Your task to perform on an android device: open chrome privacy settings Image 0: 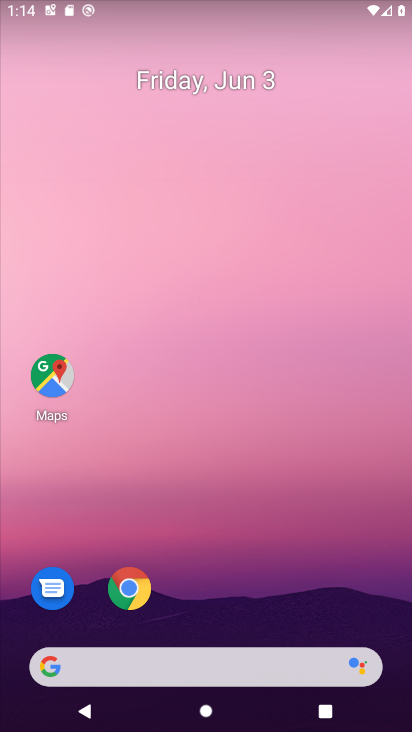
Step 0: drag from (294, 571) to (323, 41)
Your task to perform on an android device: open chrome privacy settings Image 1: 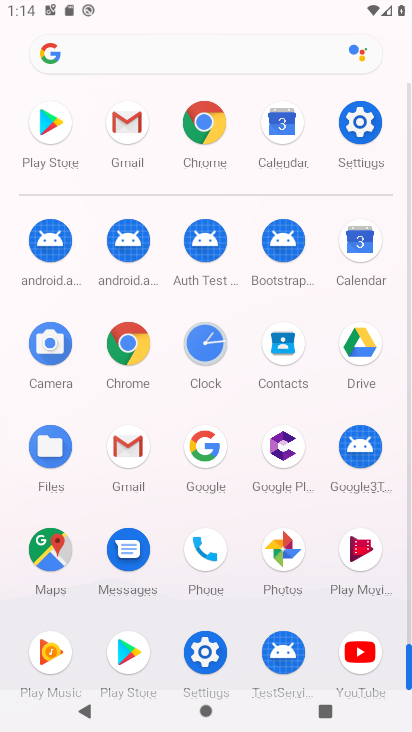
Step 1: click (367, 123)
Your task to perform on an android device: open chrome privacy settings Image 2: 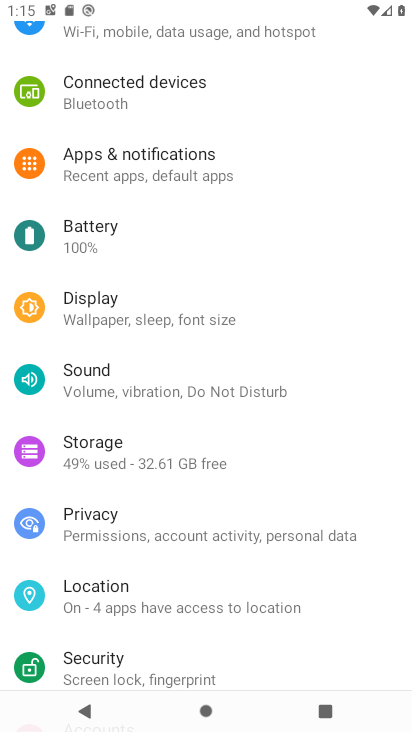
Step 2: drag from (199, 596) to (203, 355)
Your task to perform on an android device: open chrome privacy settings Image 3: 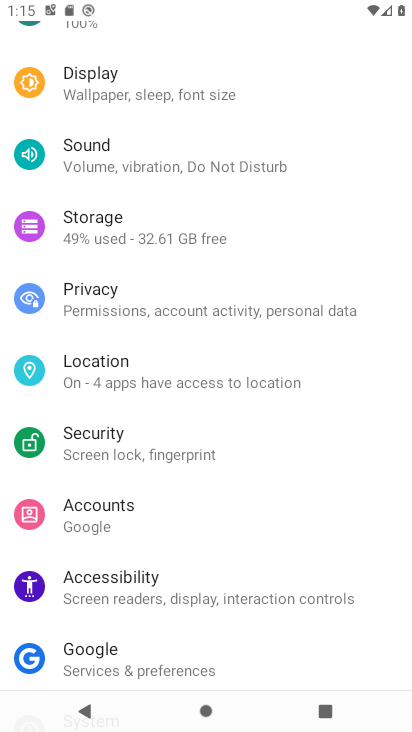
Step 3: click (292, 293)
Your task to perform on an android device: open chrome privacy settings Image 4: 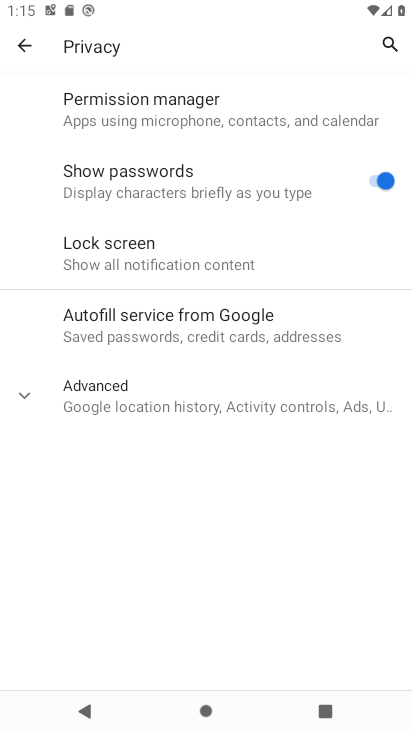
Step 4: task complete